Your task to perform on an android device: Open accessibility settings Image 0: 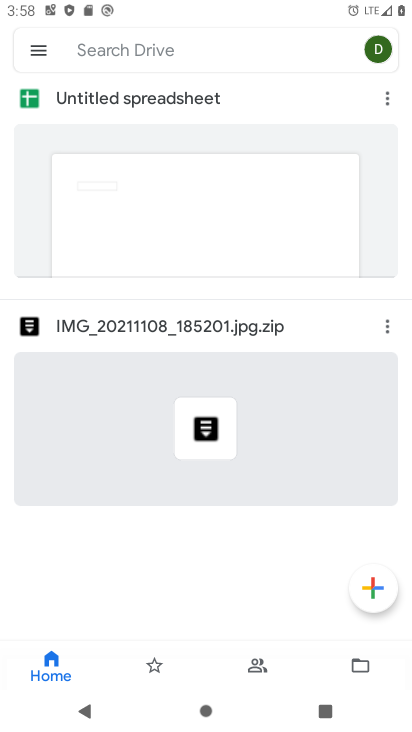
Step 0: press home button
Your task to perform on an android device: Open accessibility settings Image 1: 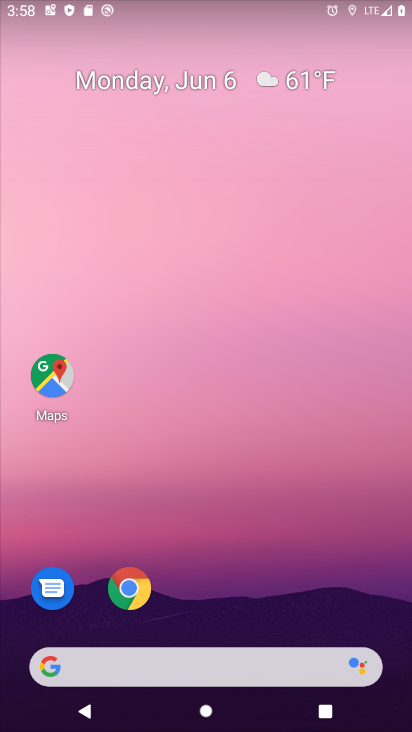
Step 1: drag from (238, 568) to (184, 219)
Your task to perform on an android device: Open accessibility settings Image 2: 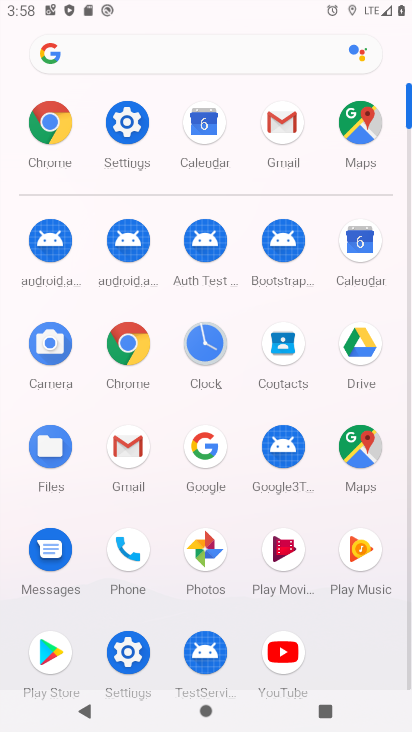
Step 2: click (121, 132)
Your task to perform on an android device: Open accessibility settings Image 3: 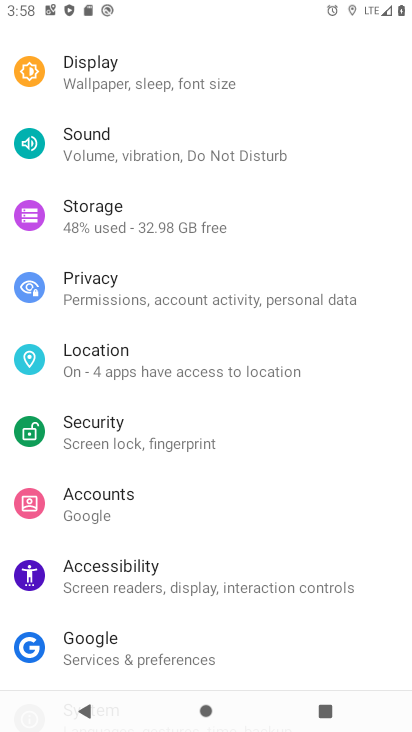
Step 3: click (267, 574)
Your task to perform on an android device: Open accessibility settings Image 4: 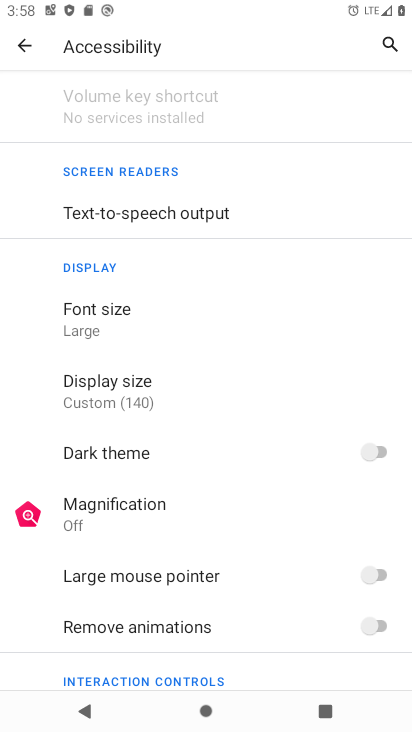
Step 4: task complete